Your task to perform on an android device: Check the news Image 0: 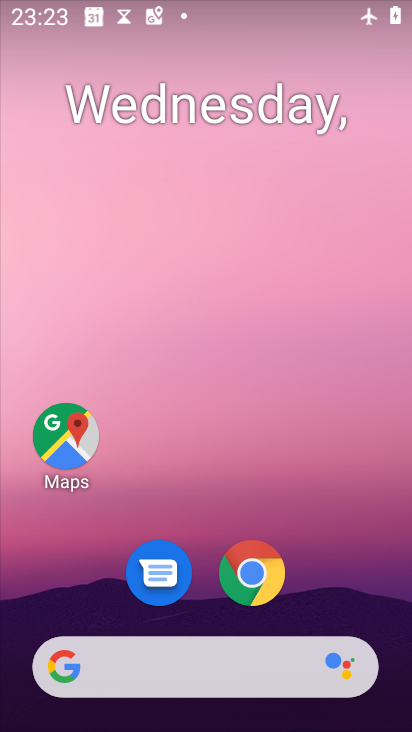
Step 0: drag from (306, 598) to (274, 294)
Your task to perform on an android device: Check the news Image 1: 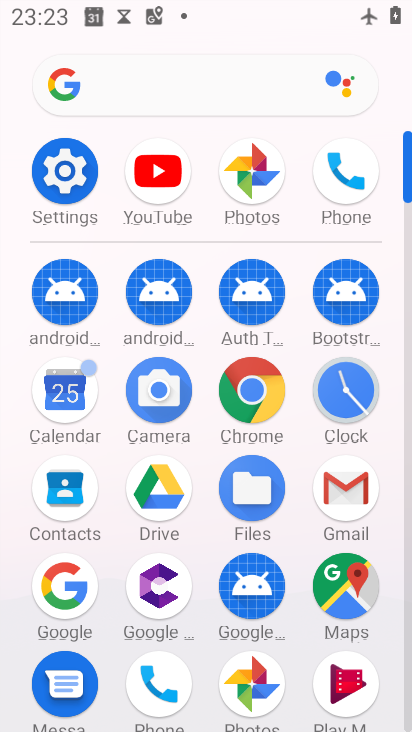
Step 1: click (256, 387)
Your task to perform on an android device: Check the news Image 2: 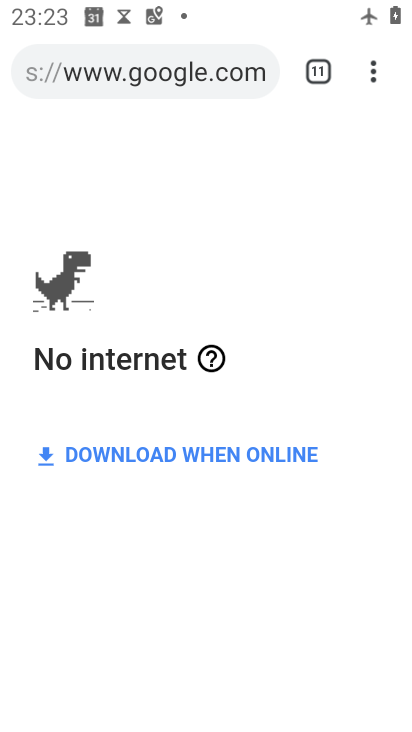
Step 2: click (359, 68)
Your task to perform on an android device: Check the news Image 3: 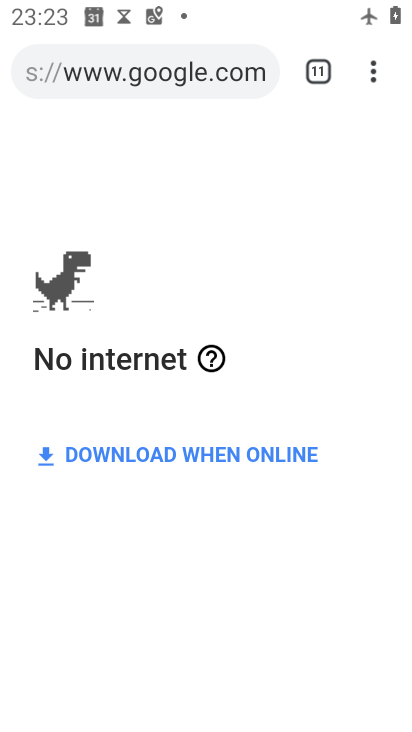
Step 3: click (362, 62)
Your task to perform on an android device: Check the news Image 4: 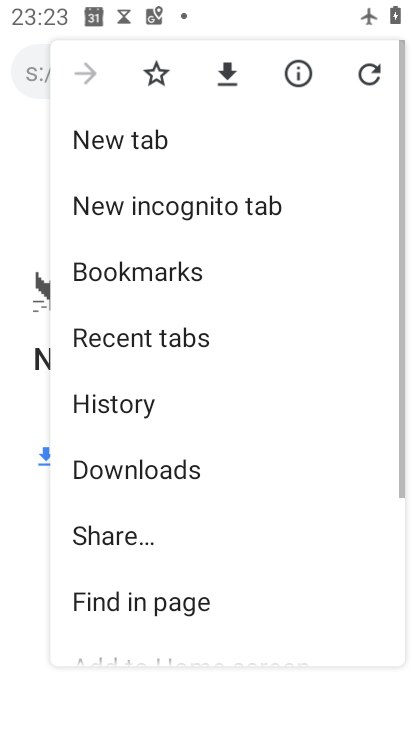
Step 4: click (171, 135)
Your task to perform on an android device: Check the news Image 5: 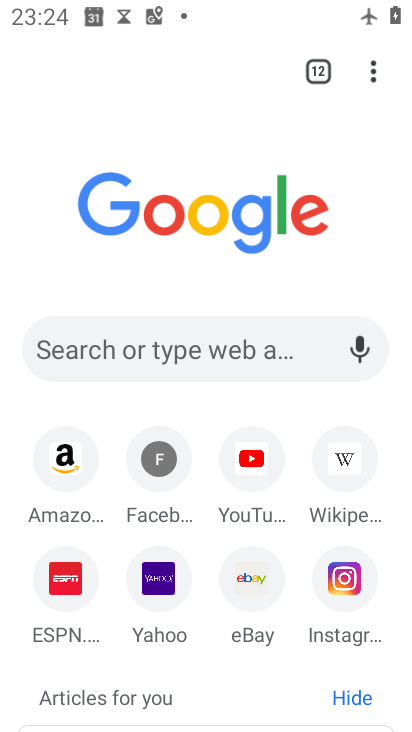
Step 5: click (229, 336)
Your task to perform on an android device: Check the news Image 6: 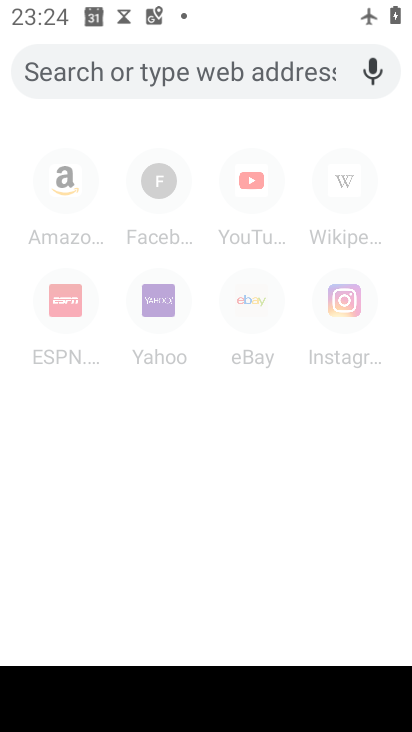
Step 6: type "Check the news"
Your task to perform on an android device: Check the news Image 7: 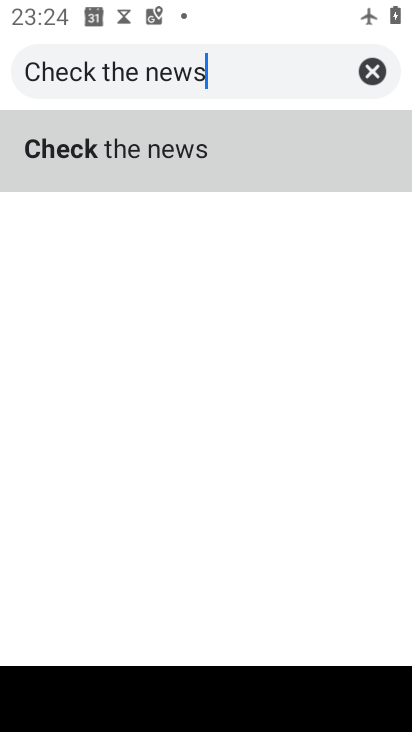
Step 7: click (278, 157)
Your task to perform on an android device: Check the news Image 8: 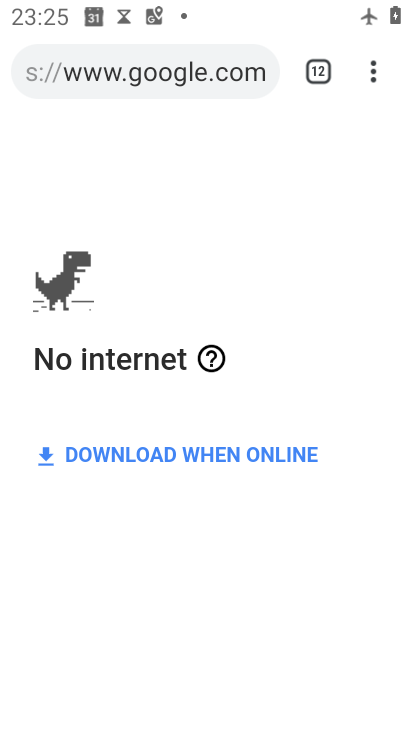
Step 8: task complete